Your task to perform on an android device: turn off airplane mode Image 0: 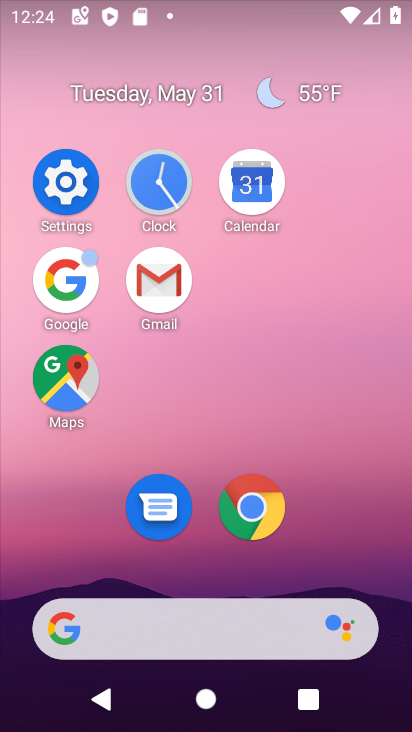
Step 0: click (81, 186)
Your task to perform on an android device: turn off airplane mode Image 1: 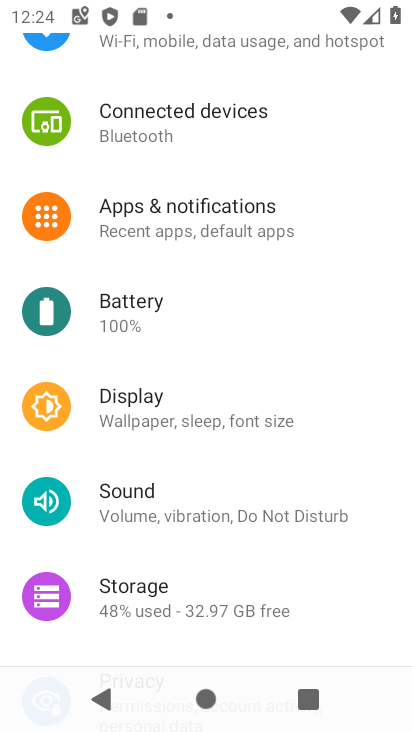
Step 1: drag from (296, 152) to (325, 574)
Your task to perform on an android device: turn off airplane mode Image 2: 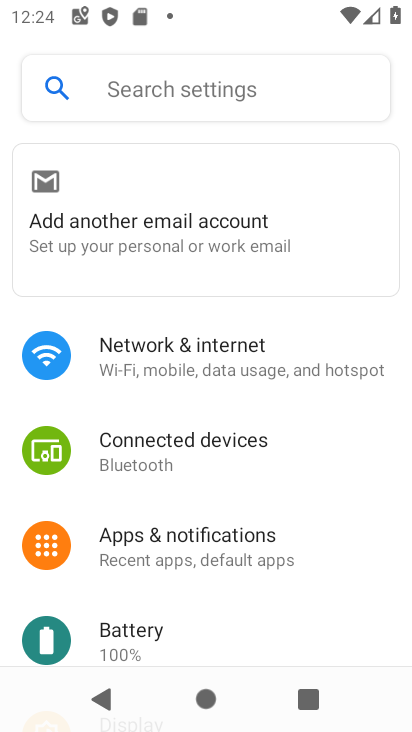
Step 2: click (251, 358)
Your task to perform on an android device: turn off airplane mode Image 3: 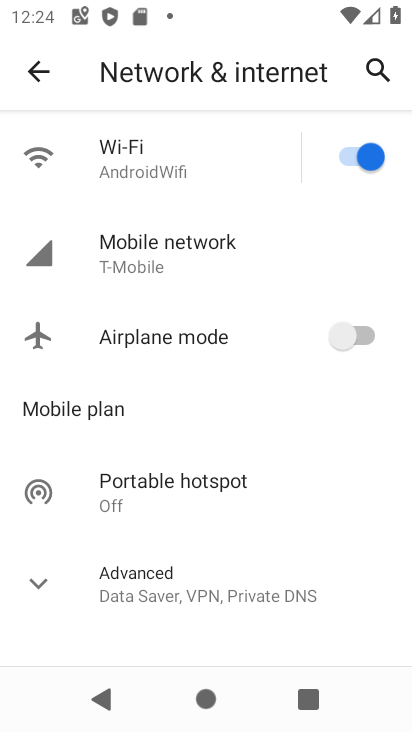
Step 3: task complete